Your task to perform on an android device: turn on the 12-hour format for clock Image 0: 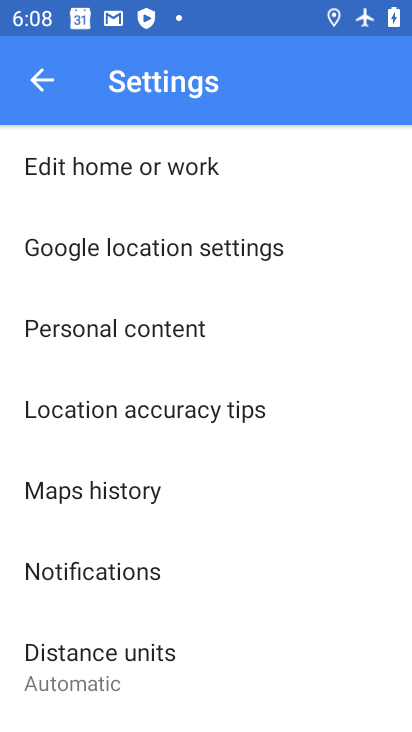
Step 0: press home button
Your task to perform on an android device: turn on the 12-hour format for clock Image 1: 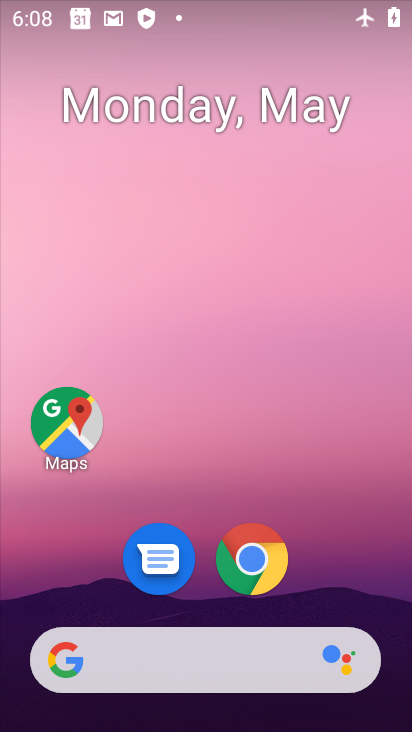
Step 1: drag from (324, 493) to (212, 41)
Your task to perform on an android device: turn on the 12-hour format for clock Image 2: 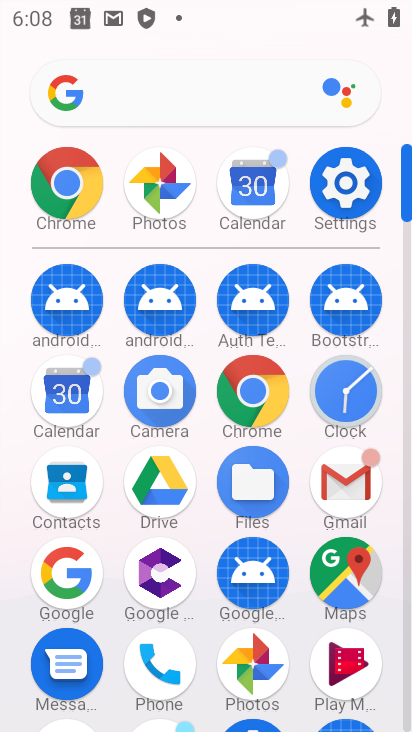
Step 2: click (351, 392)
Your task to perform on an android device: turn on the 12-hour format for clock Image 3: 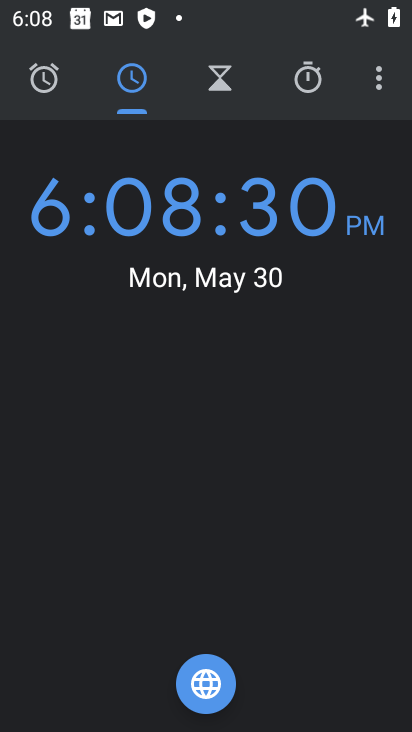
Step 3: click (379, 77)
Your task to perform on an android device: turn on the 12-hour format for clock Image 4: 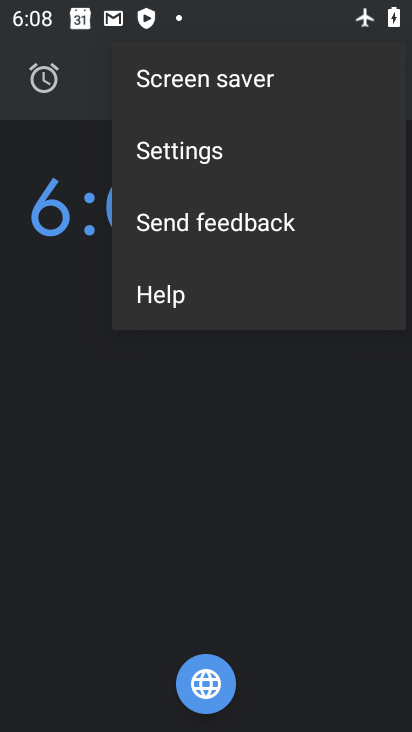
Step 4: click (183, 149)
Your task to perform on an android device: turn on the 12-hour format for clock Image 5: 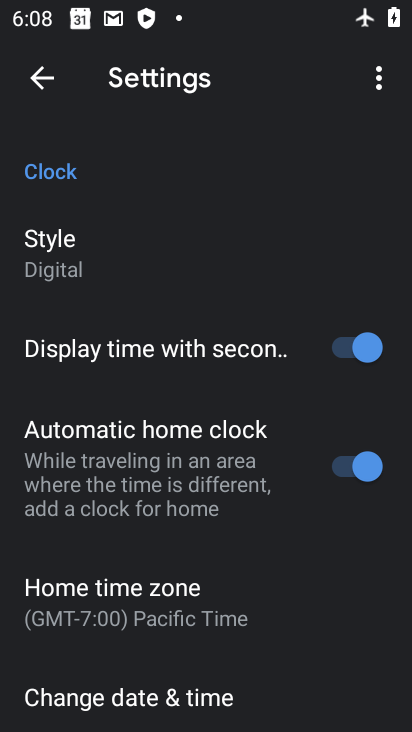
Step 5: drag from (278, 605) to (247, 218)
Your task to perform on an android device: turn on the 12-hour format for clock Image 6: 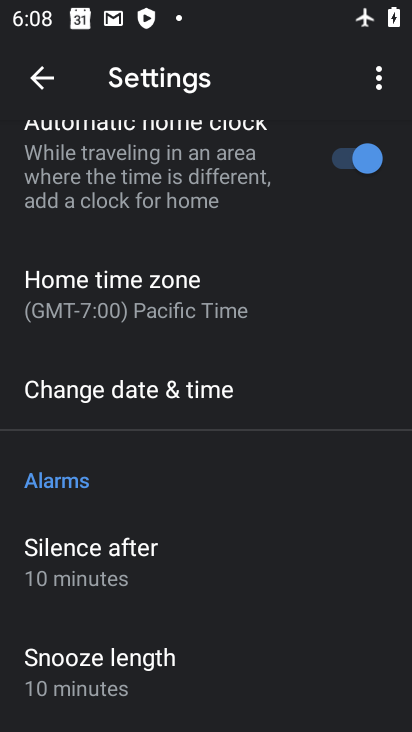
Step 6: click (177, 392)
Your task to perform on an android device: turn on the 12-hour format for clock Image 7: 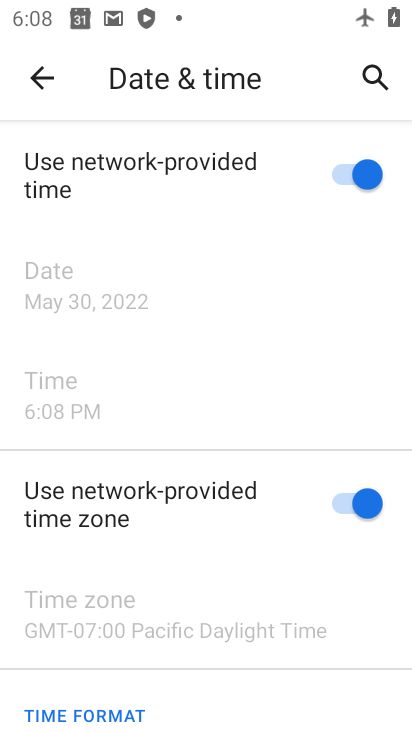
Step 7: task complete